Your task to perform on an android device: Empty the shopping cart on walmart.com. Add "lg ultragear" to the cart on walmart.com, then select checkout. Image 0: 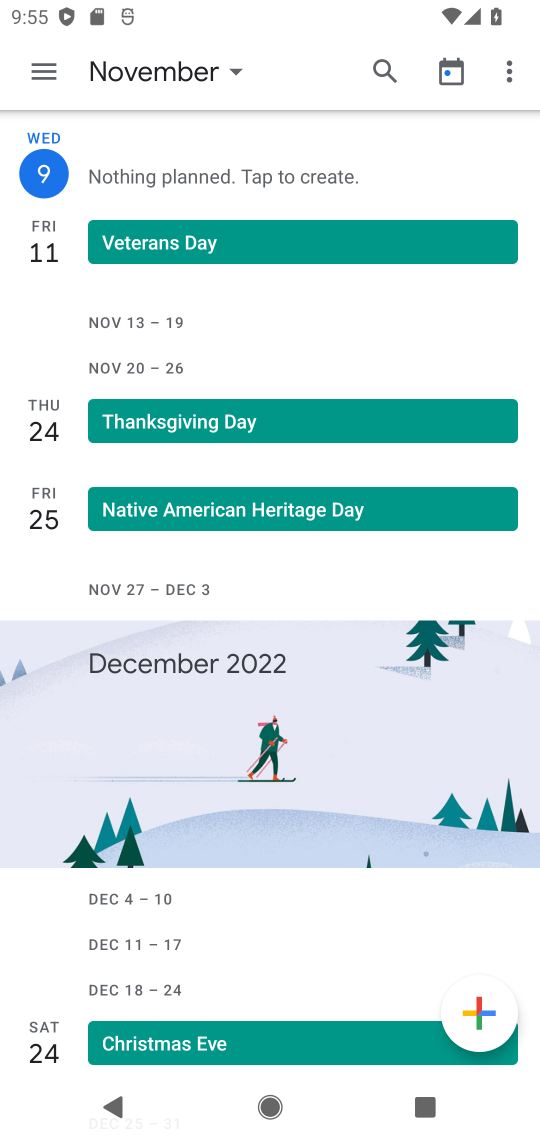
Step 0: press home button
Your task to perform on an android device: Empty the shopping cart on walmart.com. Add "lg ultragear" to the cart on walmart.com, then select checkout. Image 1: 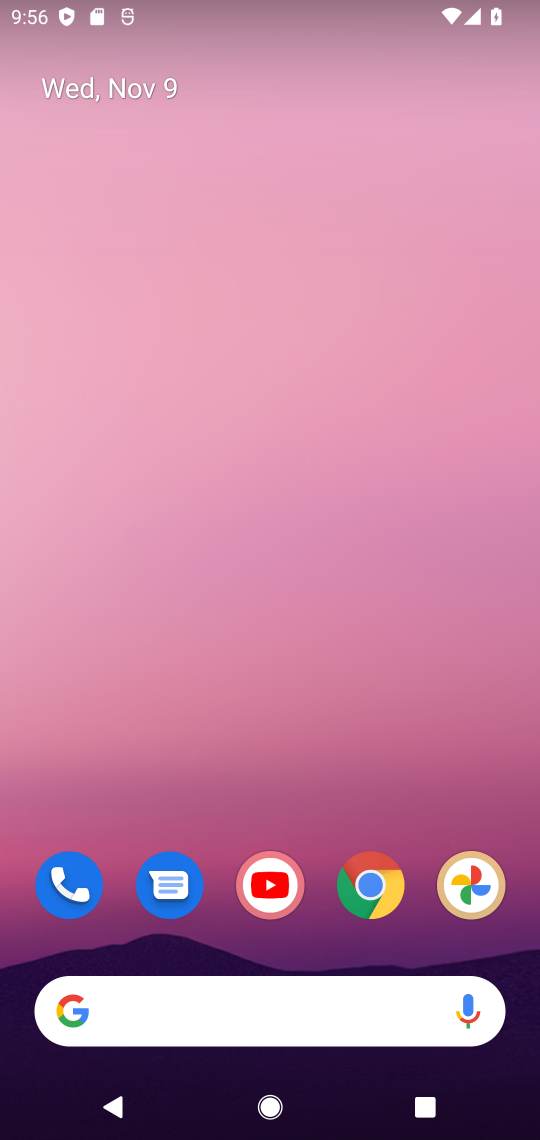
Step 1: click (374, 890)
Your task to perform on an android device: Empty the shopping cart on walmart.com. Add "lg ultragear" to the cart on walmart.com, then select checkout. Image 2: 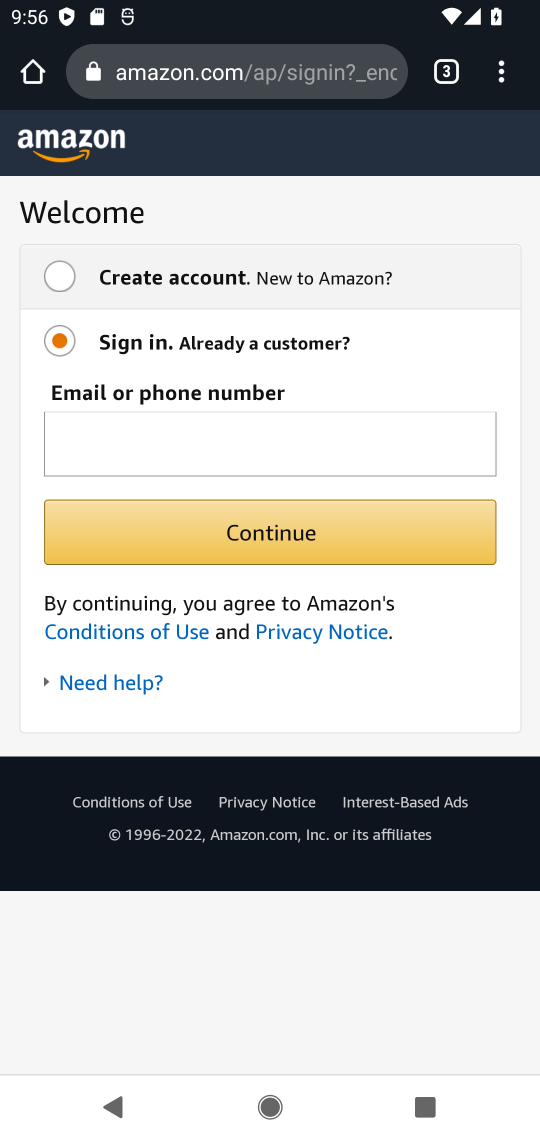
Step 2: click (448, 80)
Your task to perform on an android device: Empty the shopping cart on walmart.com. Add "lg ultragear" to the cart on walmart.com, then select checkout. Image 3: 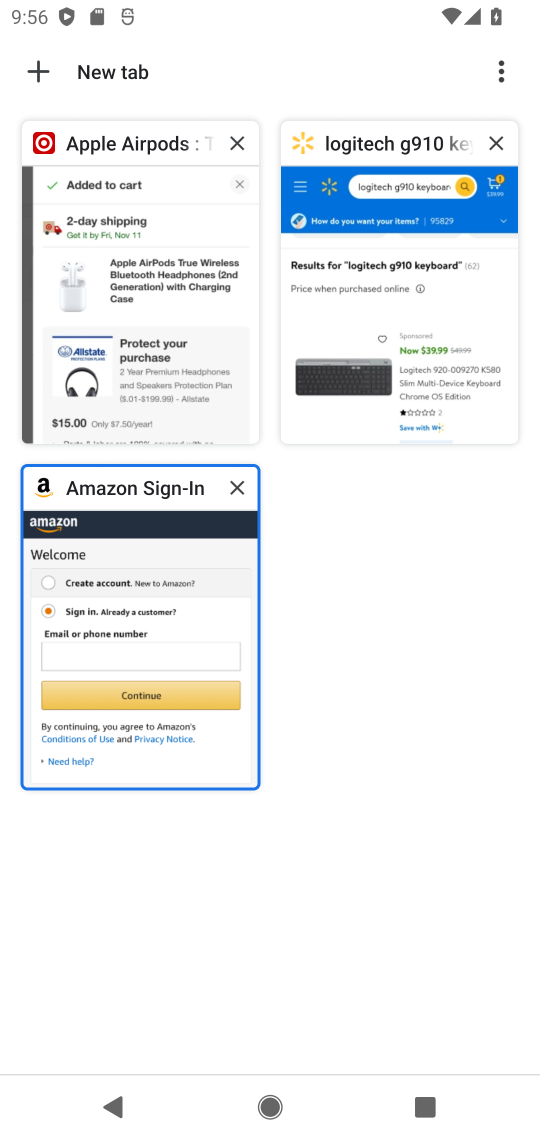
Step 3: click (391, 291)
Your task to perform on an android device: Empty the shopping cart on walmart.com. Add "lg ultragear" to the cart on walmart.com, then select checkout. Image 4: 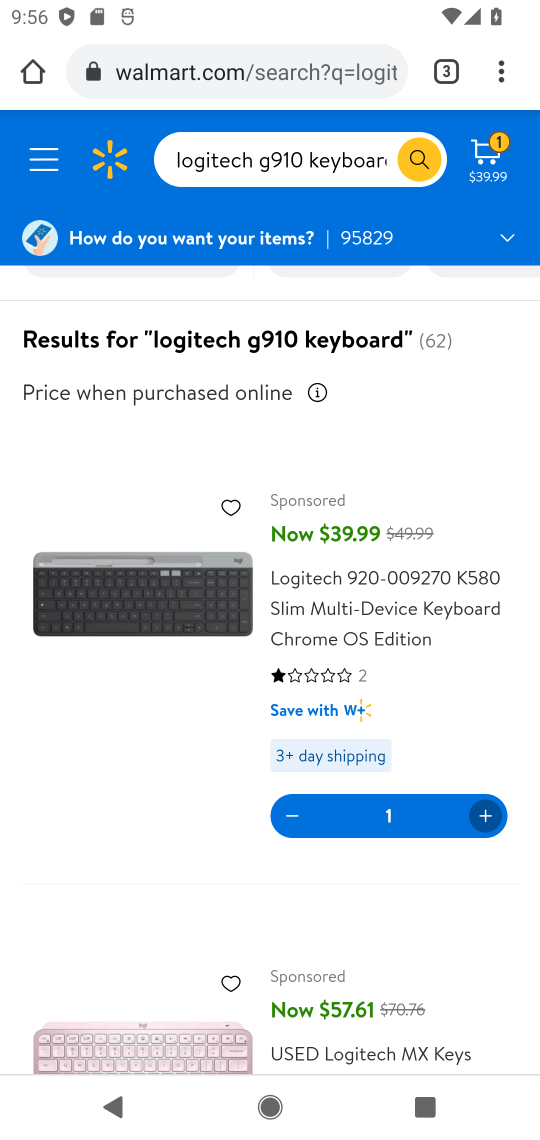
Step 4: click (320, 167)
Your task to perform on an android device: Empty the shopping cart on walmart.com. Add "lg ultragear" to the cart on walmart.com, then select checkout. Image 5: 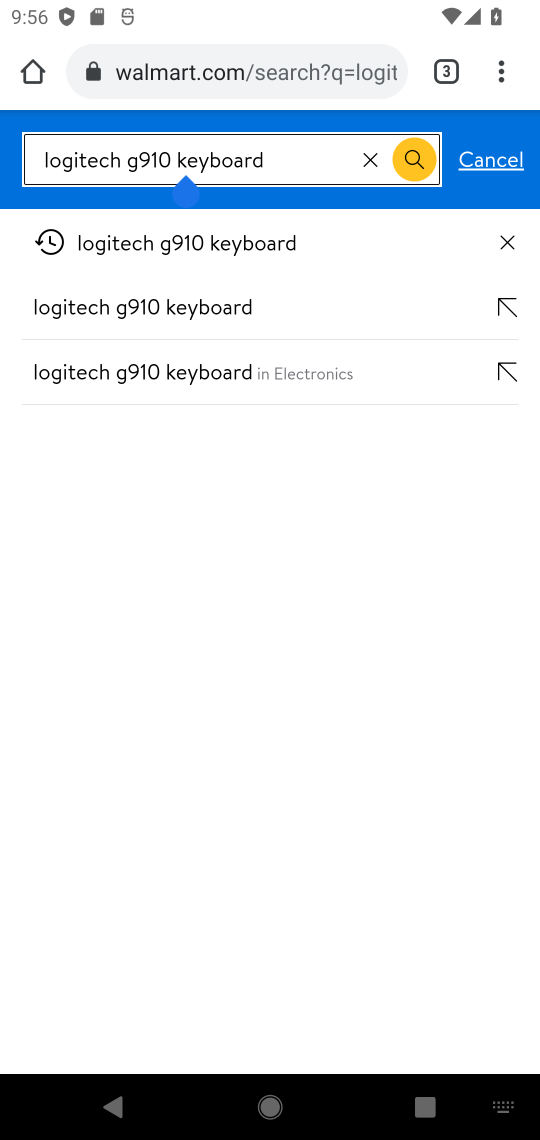
Step 5: click (370, 160)
Your task to perform on an android device: Empty the shopping cart on walmart.com. Add "lg ultragear" to the cart on walmart.com, then select checkout. Image 6: 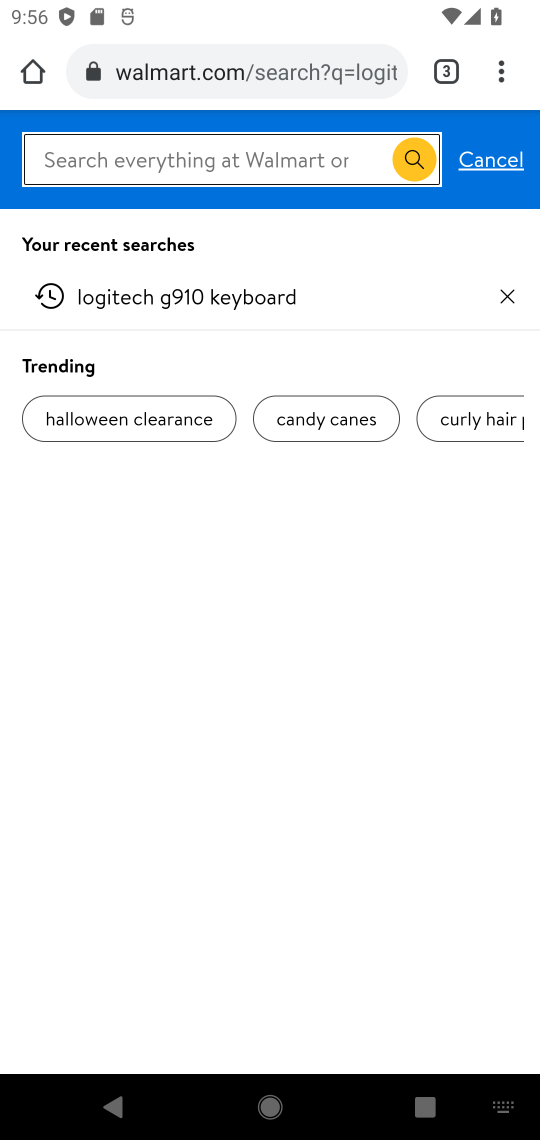
Step 6: type "lg ultragear"
Your task to perform on an android device: Empty the shopping cart on walmart.com. Add "lg ultragear" to the cart on walmart.com, then select checkout. Image 7: 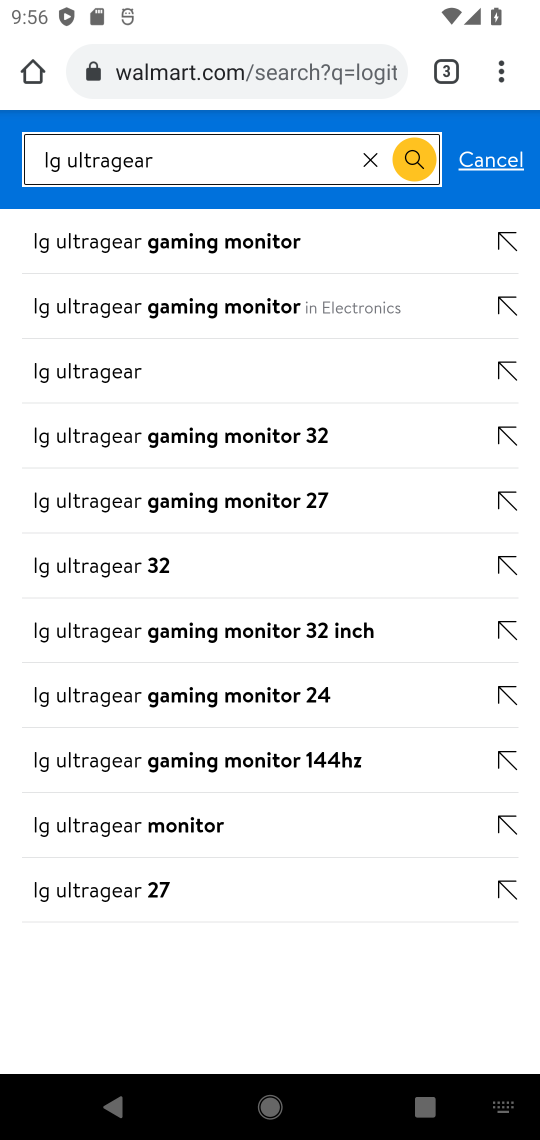
Step 7: click (255, 302)
Your task to perform on an android device: Empty the shopping cart on walmart.com. Add "lg ultragear" to the cart on walmart.com, then select checkout. Image 8: 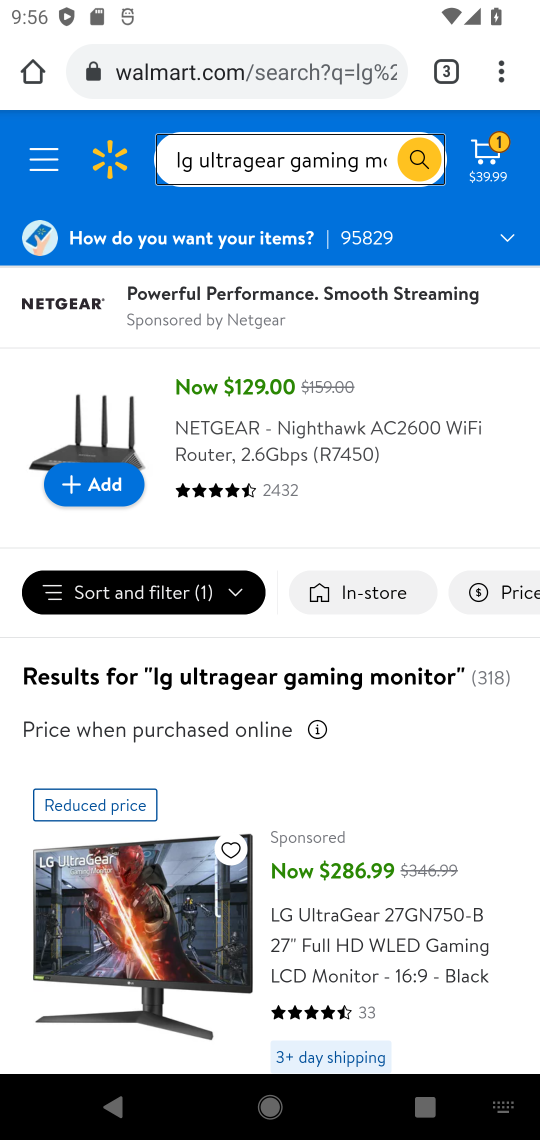
Step 8: drag from (401, 887) to (483, 479)
Your task to perform on an android device: Empty the shopping cart on walmart.com. Add "lg ultragear" to the cart on walmart.com, then select checkout. Image 9: 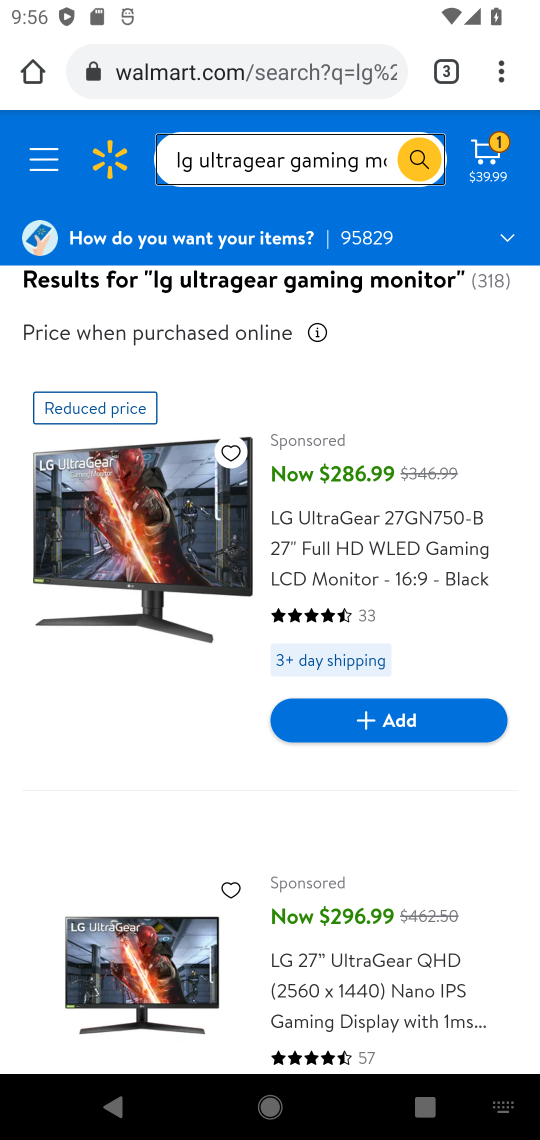
Step 9: click (406, 713)
Your task to perform on an android device: Empty the shopping cart on walmart.com. Add "lg ultragear" to the cart on walmart.com, then select checkout. Image 10: 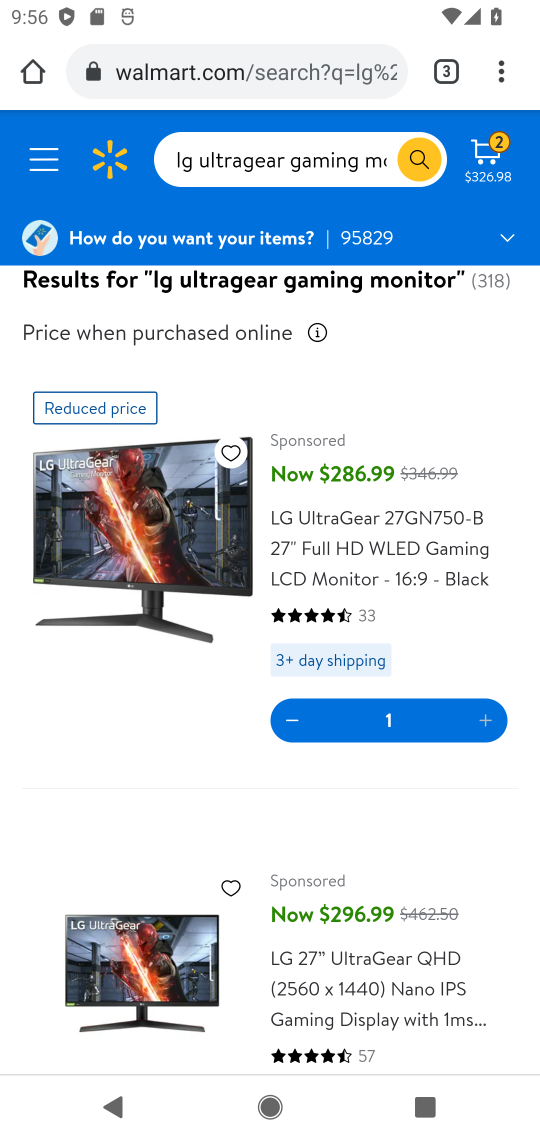
Step 10: task complete